Your task to perform on an android device: Go to Reddit.com Image 0: 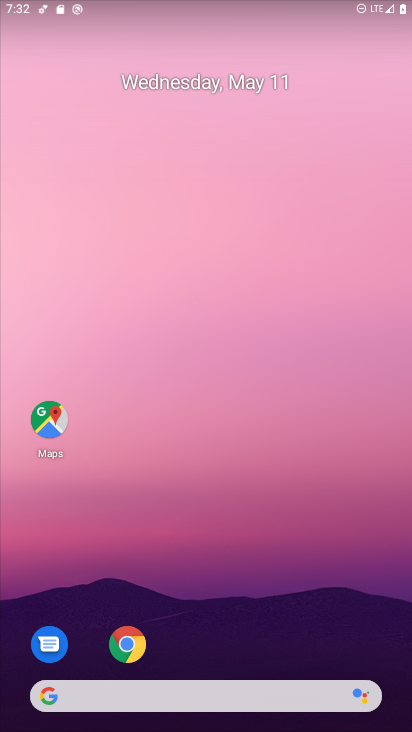
Step 0: click (125, 646)
Your task to perform on an android device: Go to Reddit.com Image 1: 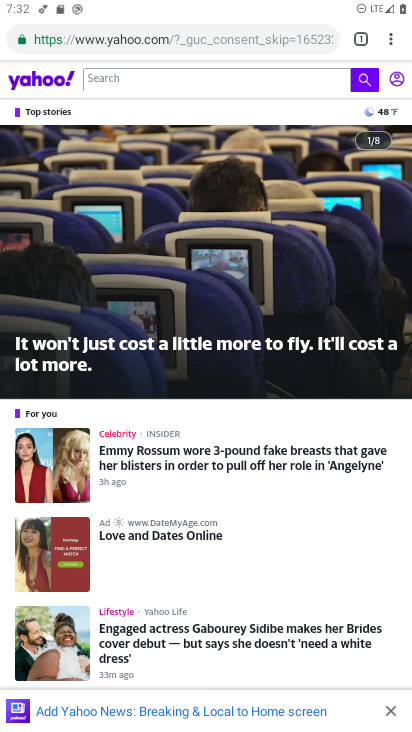
Step 1: click (394, 41)
Your task to perform on an android device: Go to Reddit.com Image 2: 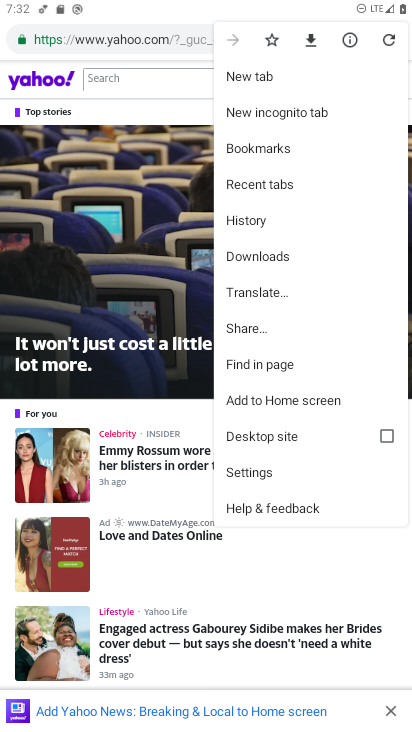
Step 2: click (243, 78)
Your task to perform on an android device: Go to Reddit.com Image 3: 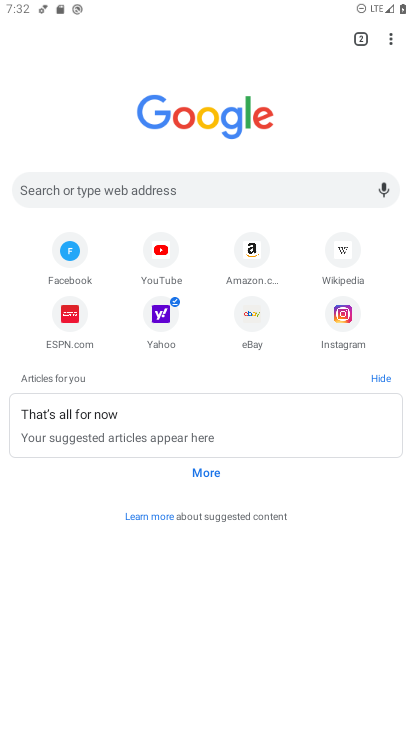
Step 3: click (148, 188)
Your task to perform on an android device: Go to Reddit.com Image 4: 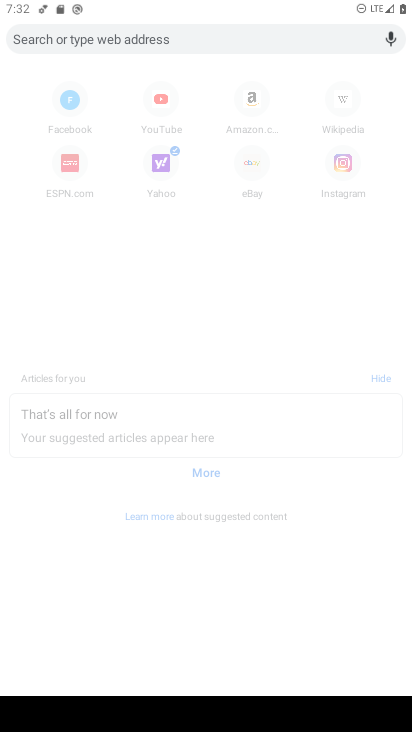
Step 4: type "reddit.com"
Your task to perform on an android device: Go to Reddit.com Image 5: 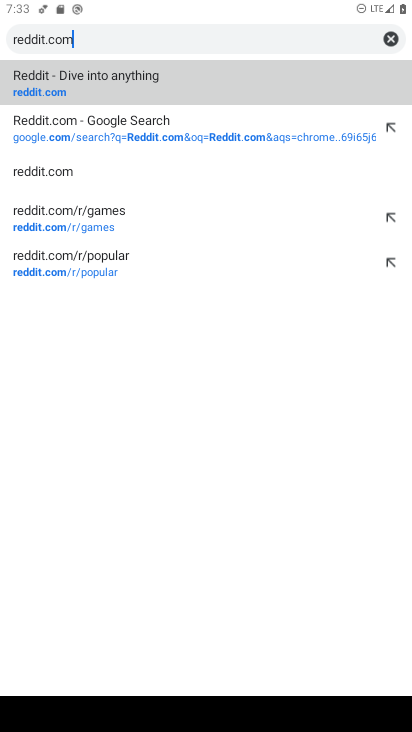
Step 5: click (125, 120)
Your task to perform on an android device: Go to Reddit.com Image 6: 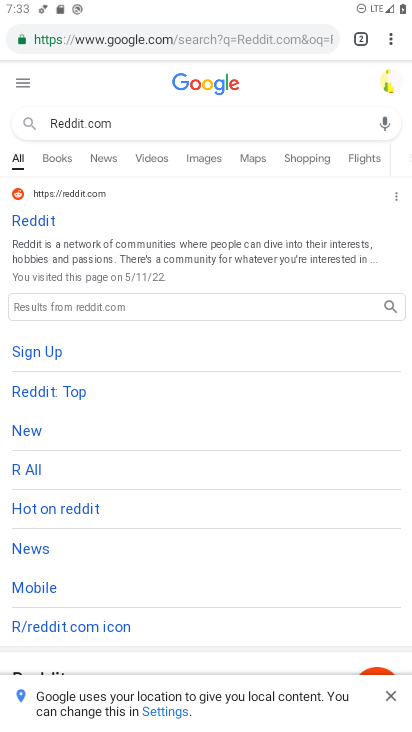
Step 6: task complete